Your task to perform on an android device: see sites visited before in the chrome app Image 0: 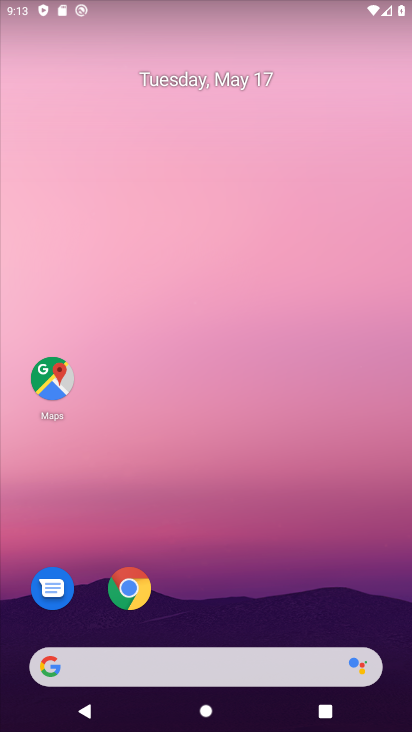
Step 0: drag from (221, 631) to (197, 18)
Your task to perform on an android device: see sites visited before in the chrome app Image 1: 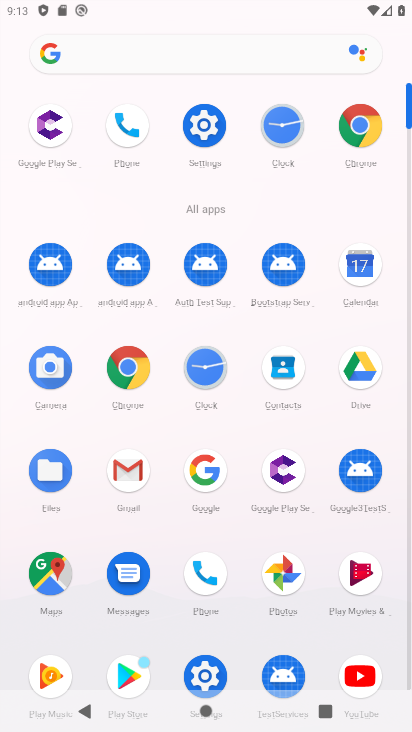
Step 1: click (132, 380)
Your task to perform on an android device: see sites visited before in the chrome app Image 2: 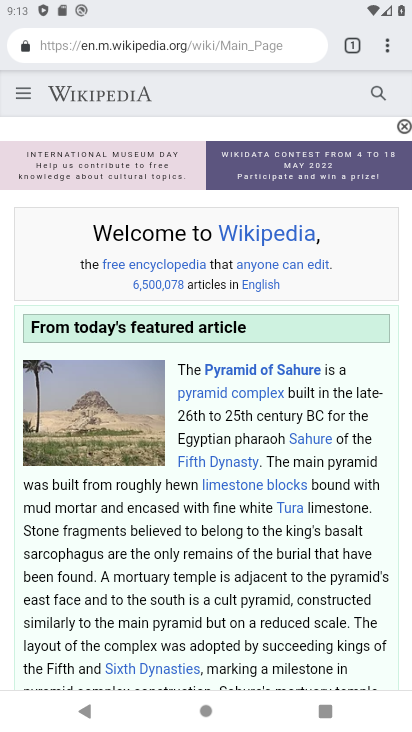
Step 2: click (382, 47)
Your task to perform on an android device: see sites visited before in the chrome app Image 3: 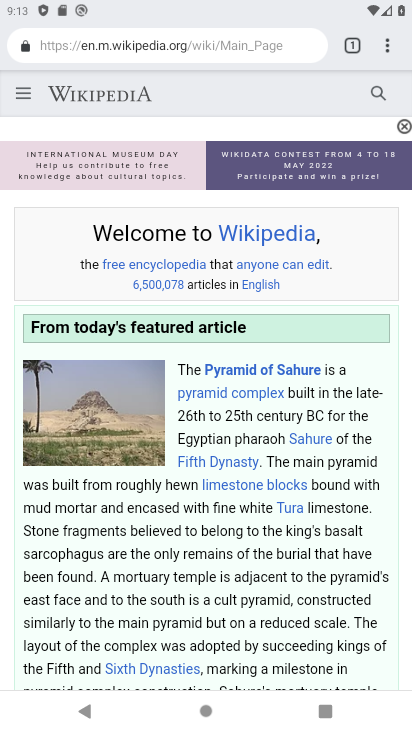
Step 3: click (384, 47)
Your task to perform on an android device: see sites visited before in the chrome app Image 4: 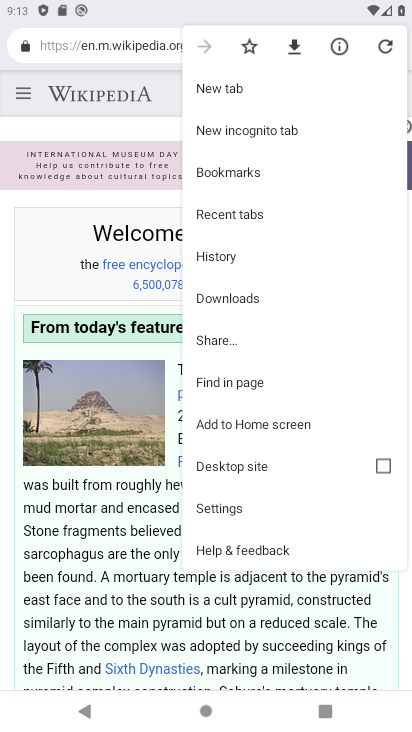
Step 4: click (240, 256)
Your task to perform on an android device: see sites visited before in the chrome app Image 5: 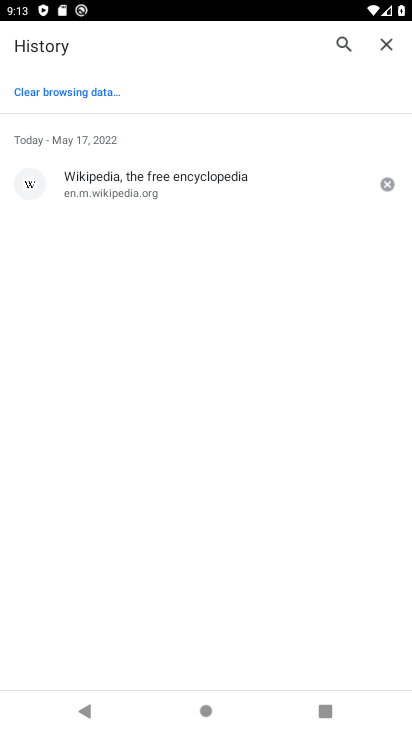
Step 5: task complete